Your task to perform on an android device: What's the weather going to be tomorrow? Image 0: 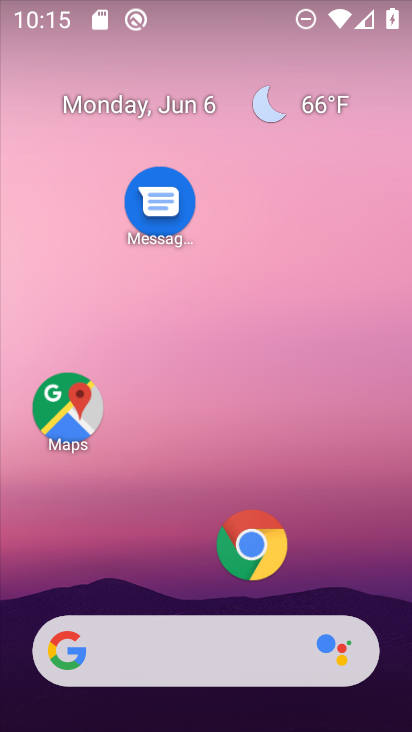
Step 0: drag from (163, 594) to (226, 159)
Your task to perform on an android device: What's the weather going to be tomorrow? Image 1: 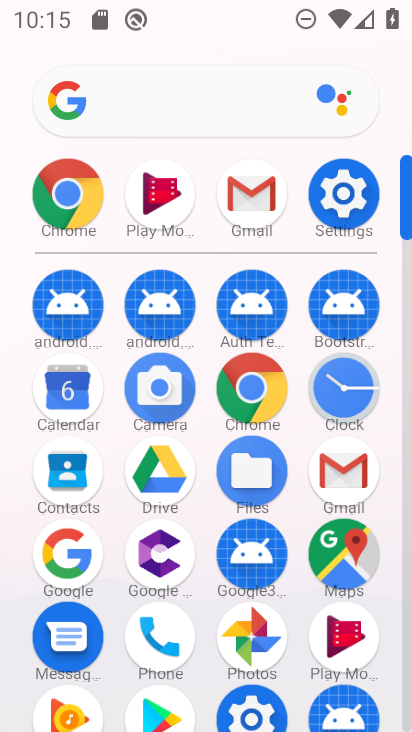
Step 1: click (71, 187)
Your task to perform on an android device: What's the weather going to be tomorrow? Image 2: 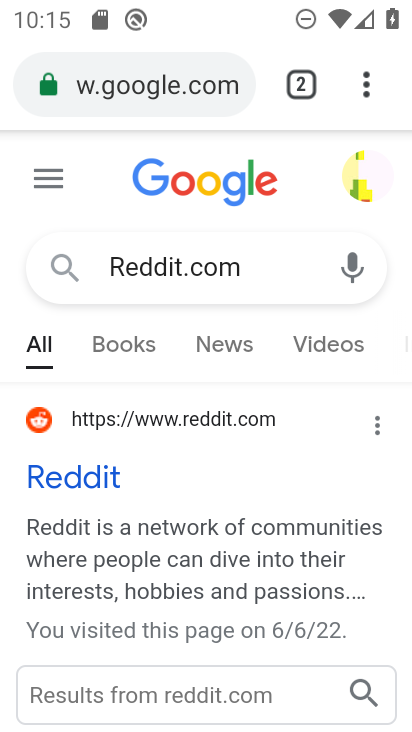
Step 2: click (143, 80)
Your task to perform on an android device: What's the weather going to be tomorrow? Image 3: 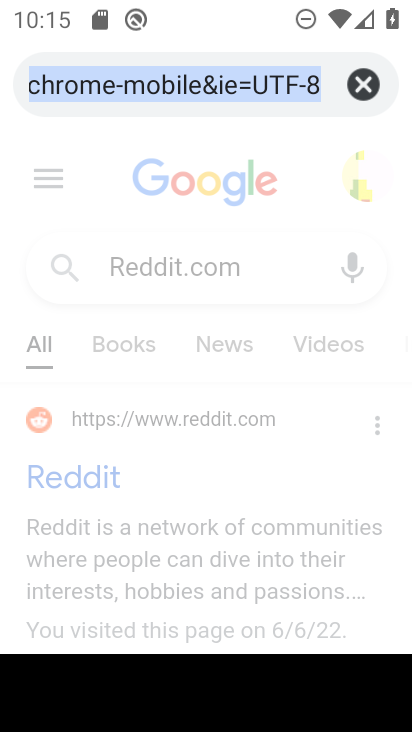
Step 3: type "What's the weather going to be tomorrow?"
Your task to perform on an android device: What's the weather going to be tomorrow? Image 4: 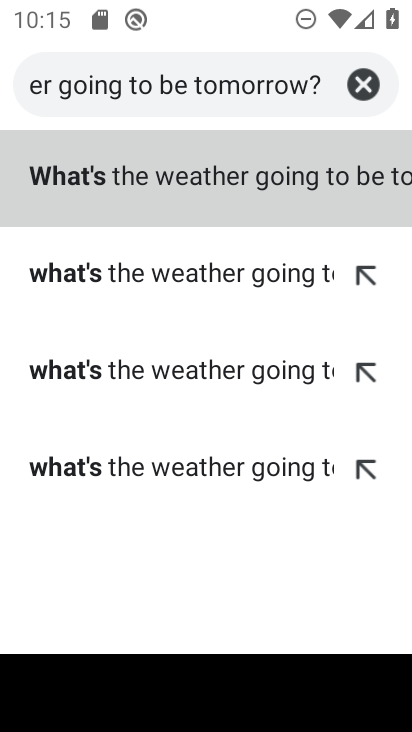
Step 4: click (161, 165)
Your task to perform on an android device: What's the weather going to be tomorrow? Image 5: 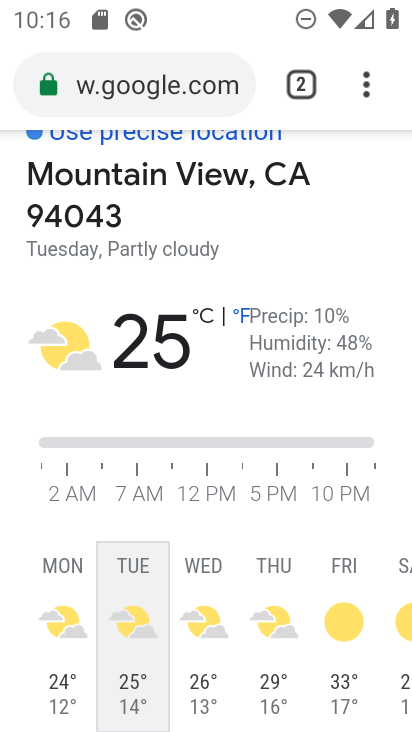
Step 5: task complete